Your task to perform on an android device: toggle javascript in the chrome app Image 0: 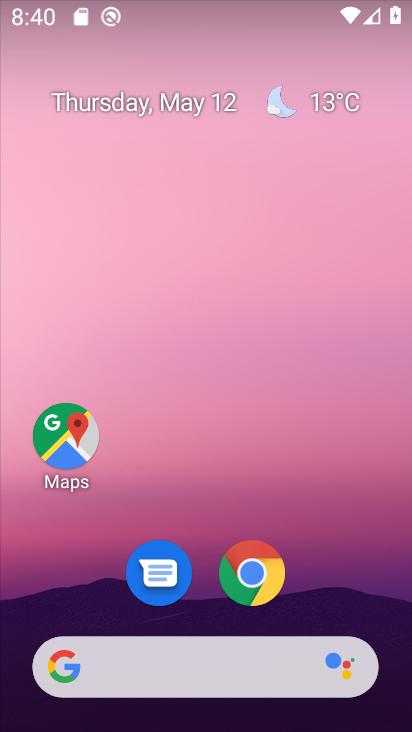
Step 0: click (254, 576)
Your task to perform on an android device: toggle javascript in the chrome app Image 1: 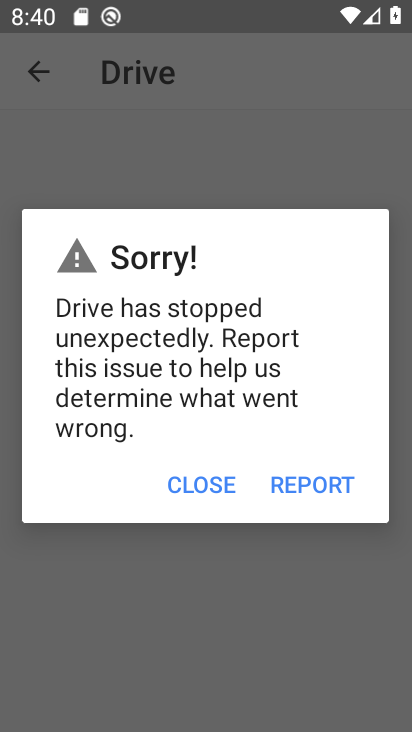
Step 1: press home button
Your task to perform on an android device: toggle javascript in the chrome app Image 2: 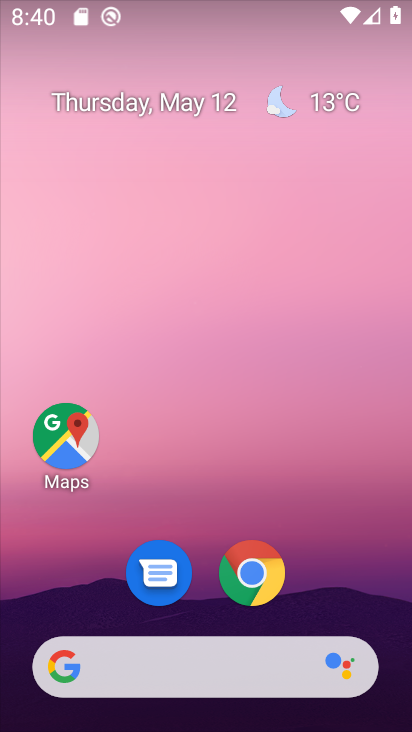
Step 2: click (237, 576)
Your task to perform on an android device: toggle javascript in the chrome app Image 3: 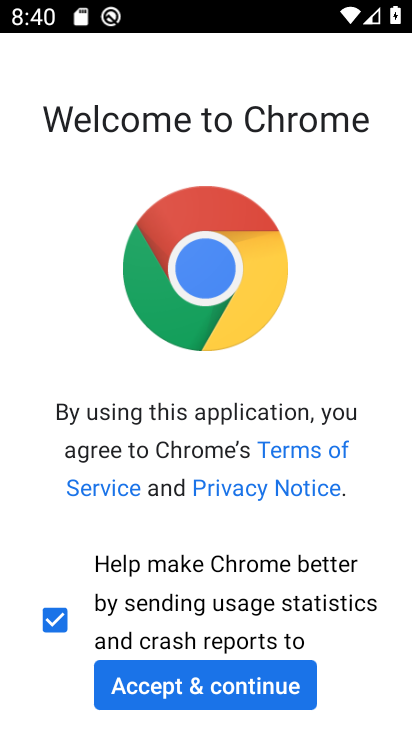
Step 3: click (223, 683)
Your task to perform on an android device: toggle javascript in the chrome app Image 4: 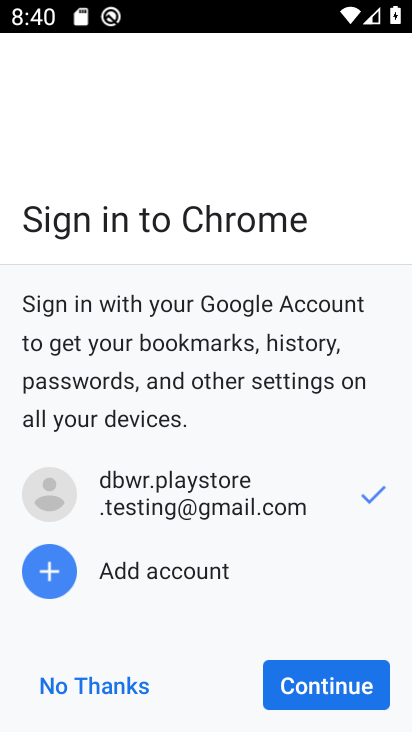
Step 4: click (333, 669)
Your task to perform on an android device: toggle javascript in the chrome app Image 5: 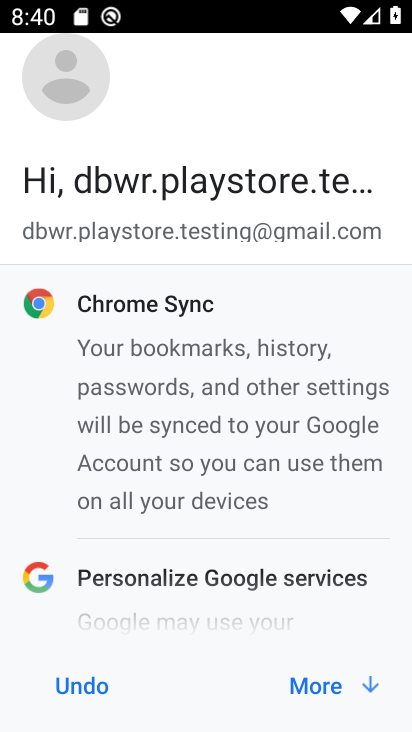
Step 5: click (330, 676)
Your task to perform on an android device: toggle javascript in the chrome app Image 6: 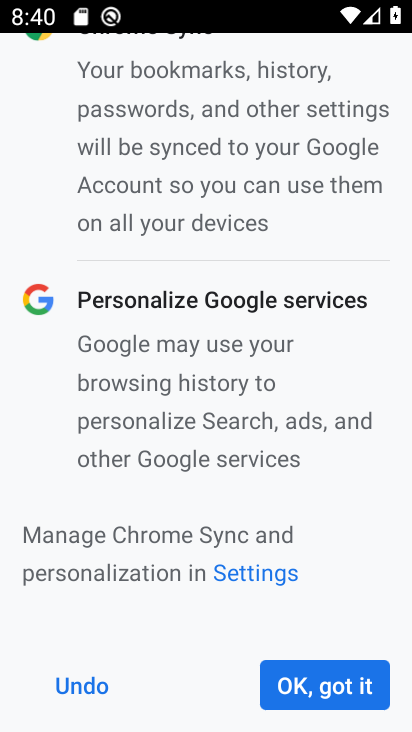
Step 6: click (333, 686)
Your task to perform on an android device: toggle javascript in the chrome app Image 7: 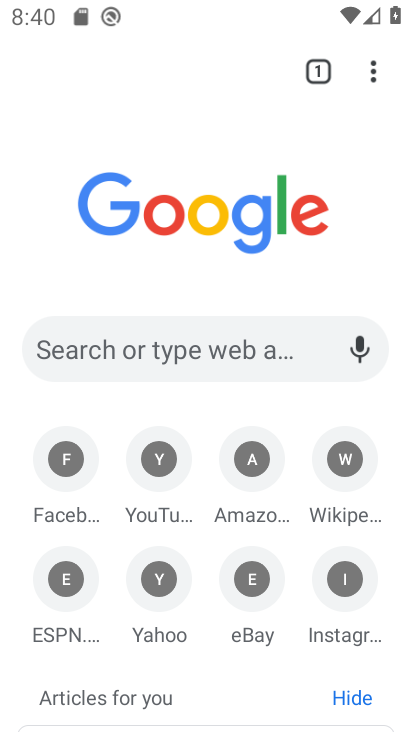
Step 7: drag from (386, 64) to (204, 587)
Your task to perform on an android device: toggle javascript in the chrome app Image 8: 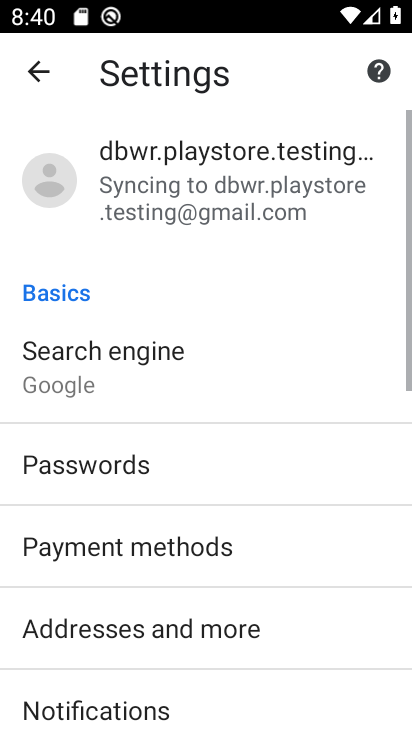
Step 8: drag from (172, 616) to (250, 290)
Your task to perform on an android device: toggle javascript in the chrome app Image 9: 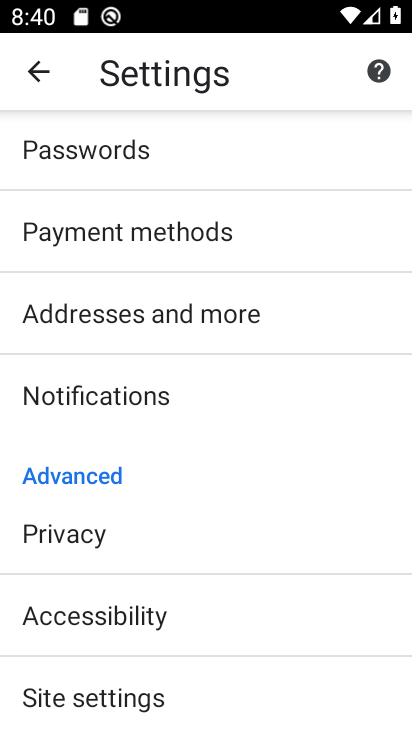
Step 9: drag from (142, 627) to (212, 363)
Your task to perform on an android device: toggle javascript in the chrome app Image 10: 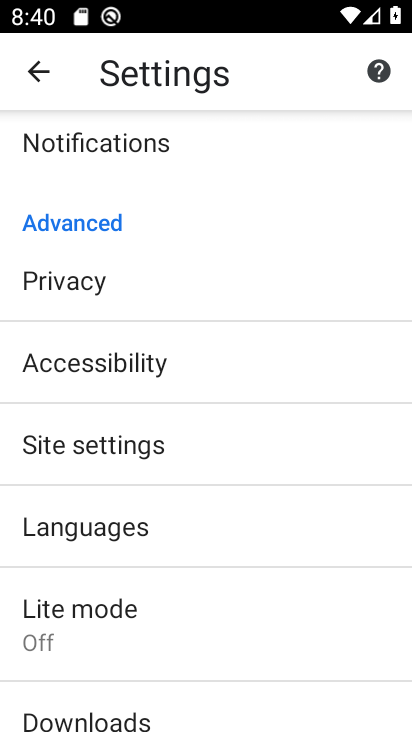
Step 10: click (162, 454)
Your task to perform on an android device: toggle javascript in the chrome app Image 11: 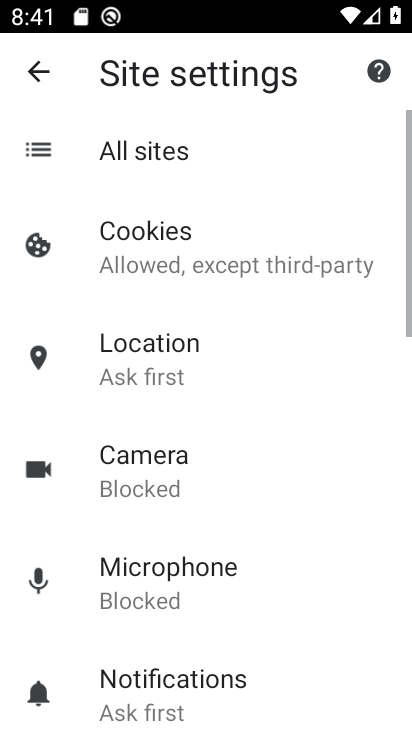
Step 11: drag from (217, 554) to (283, 256)
Your task to perform on an android device: toggle javascript in the chrome app Image 12: 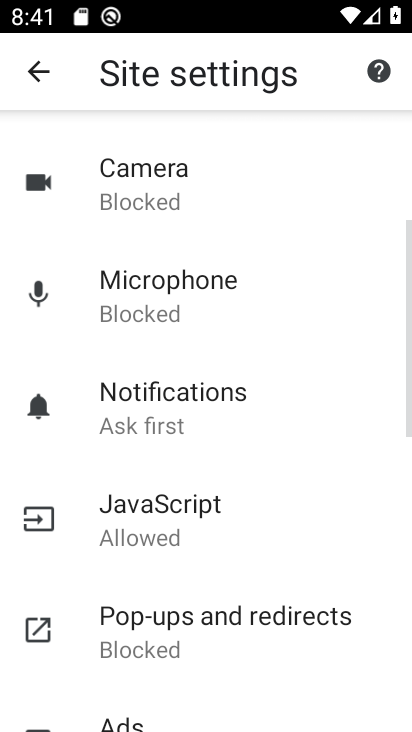
Step 12: click (213, 547)
Your task to perform on an android device: toggle javascript in the chrome app Image 13: 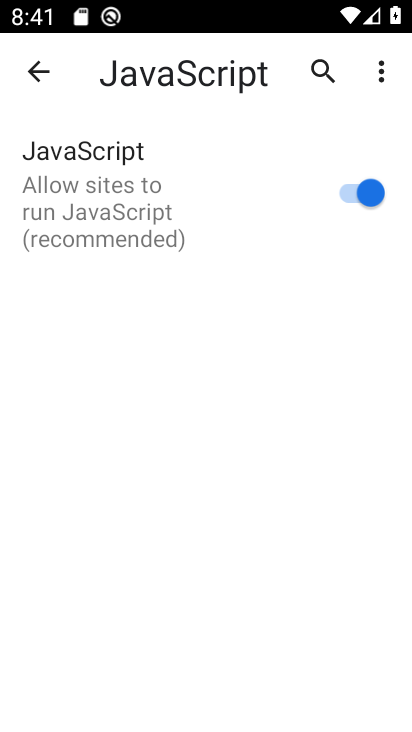
Step 13: click (350, 195)
Your task to perform on an android device: toggle javascript in the chrome app Image 14: 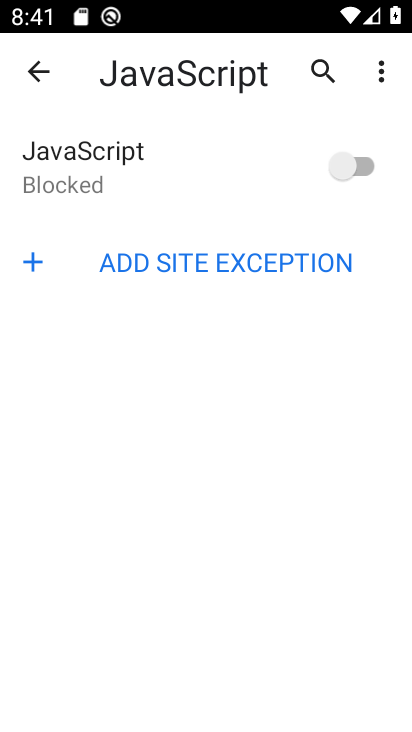
Step 14: task complete